Your task to perform on an android device: Search for vegetarian restaurants on Maps Image 0: 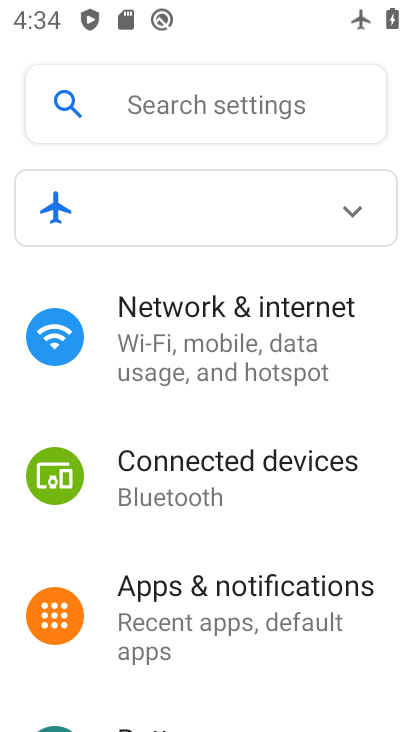
Step 0: press home button
Your task to perform on an android device: Search for vegetarian restaurants on Maps Image 1: 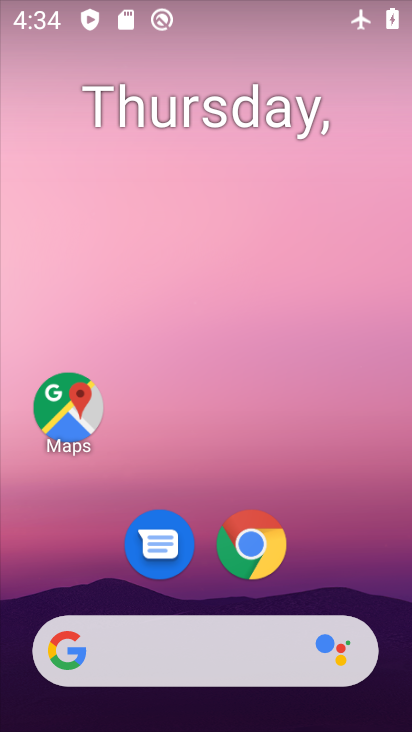
Step 1: click (54, 407)
Your task to perform on an android device: Search for vegetarian restaurants on Maps Image 2: 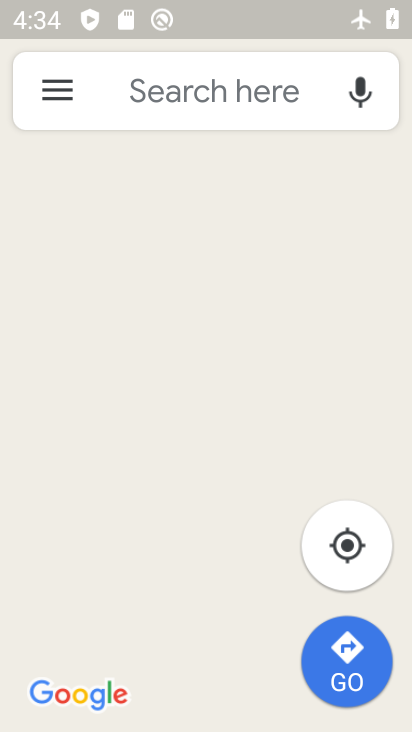
Step 2: click (193, 87)
Your task to perform on an android device: Search for vegetarian restaurants on Maps Image 3: 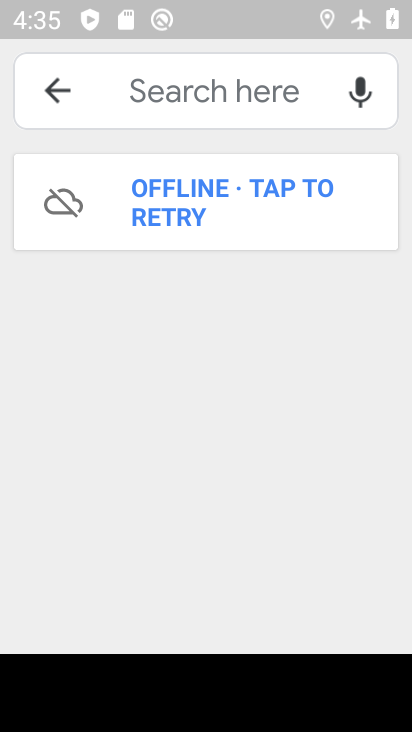
Step 3: type "vegetarian restaurants"
Your task to perform on an android device: Search for vegetarian restaurants on Maps Image 4: 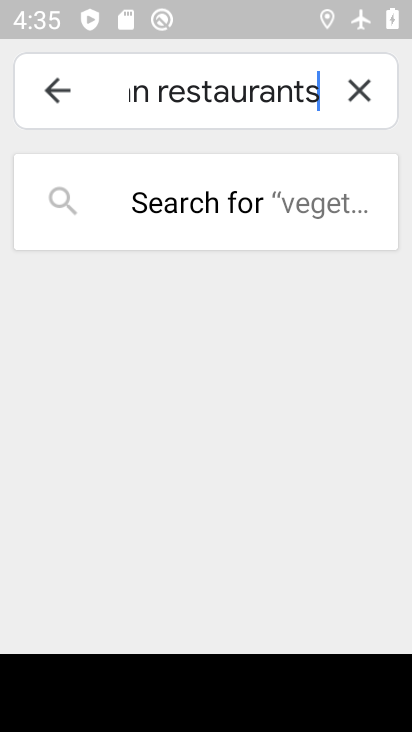
Step 4: type ""
Your task to perform on an android device: Search for vegetarian restaurants on Maps Image 5: 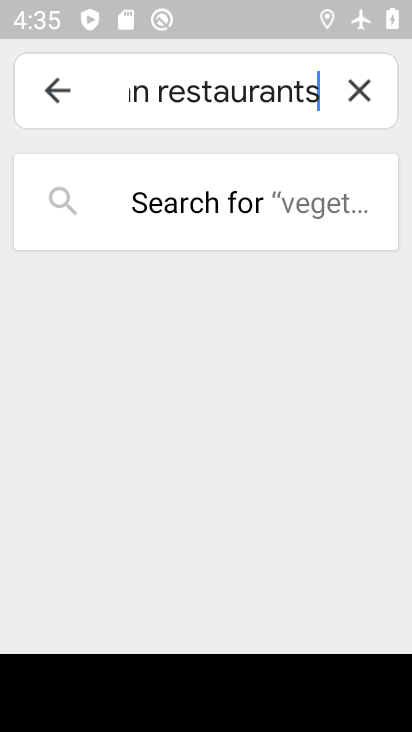
Step 5: task complete